Your task to perform on an android device: Go to Wikipedia Image 0: 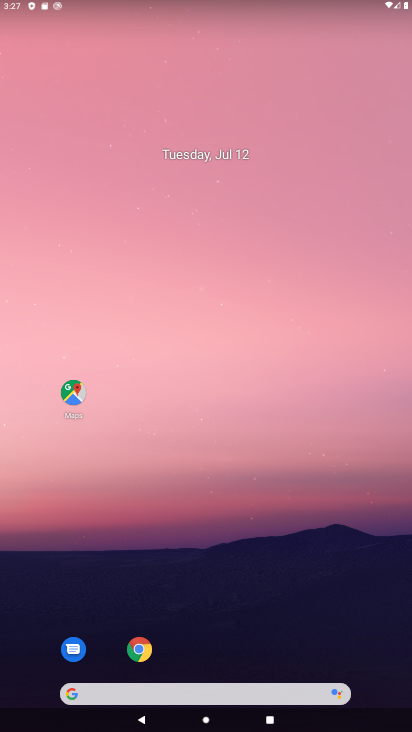
Step 0: press home button
Your task to perform on an android device: Go to Wikipedia Image 1: 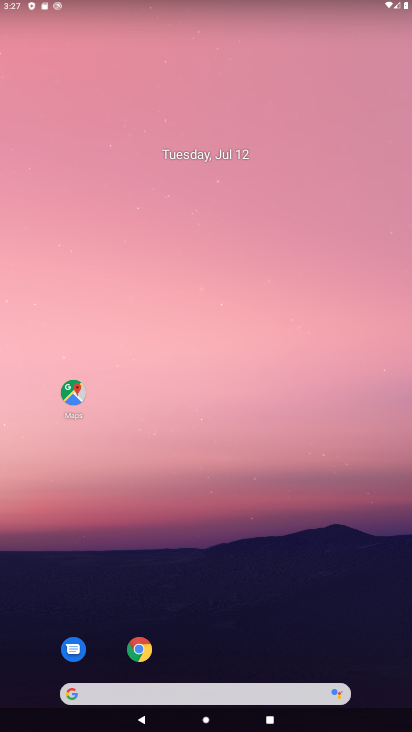
Step 1: drag from (210, 661) to (222, 50)
Your task to perform on an android device: Go to Wikipedia Image 2: 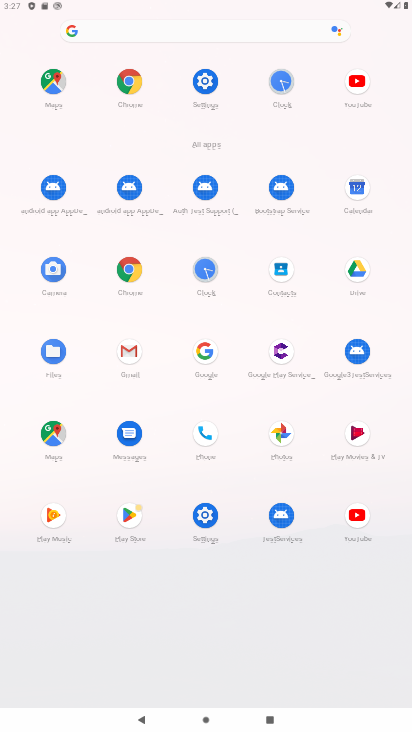
Step 2: click (128, 76)
Your task to perform on an android device: Go to Wikipedia Image 3: 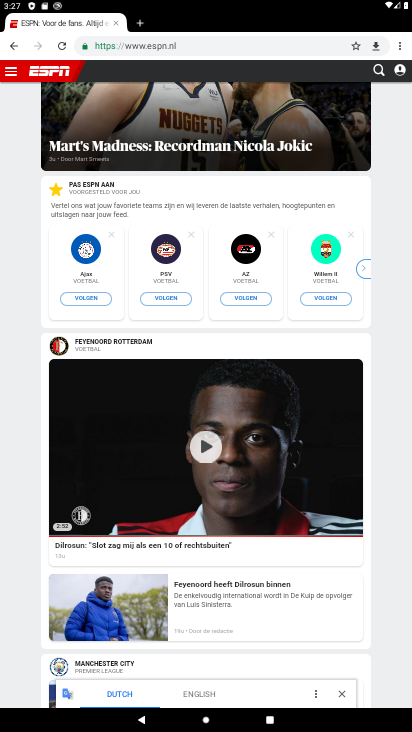
Step 3: drag from (229, 91) to (225, 589)
Your task to perform on an android device: Go to Wikipedia Image 4: 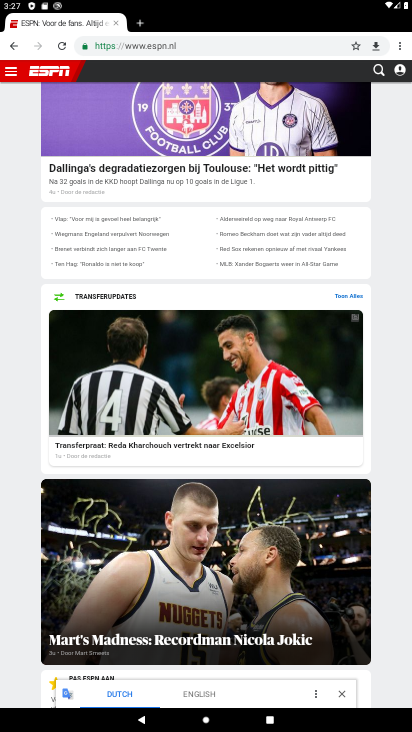
Step 4: click (144, 22)
Your task to perform on an android device: Go to Wikipedia Image 5: 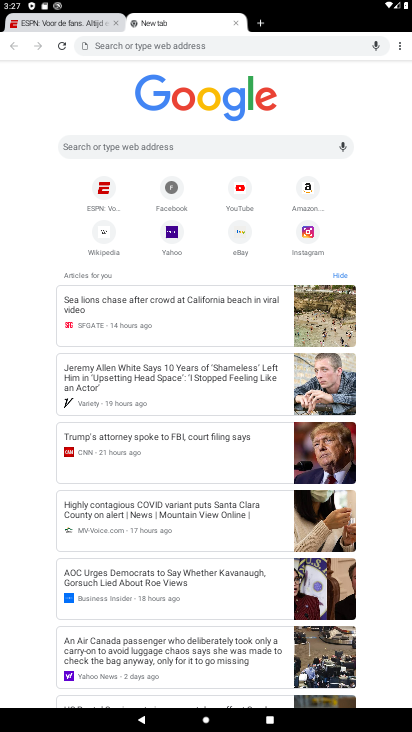
Step 5: click (103, 232)
Your task to perform on an android device: Go to Wikipedia Image 6: 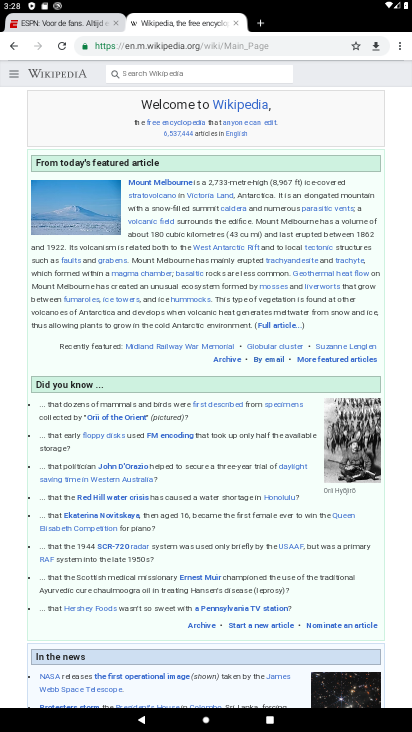
Step 6: task complete